Your task to perform on an android device: open sync settings in chrome Image 0: 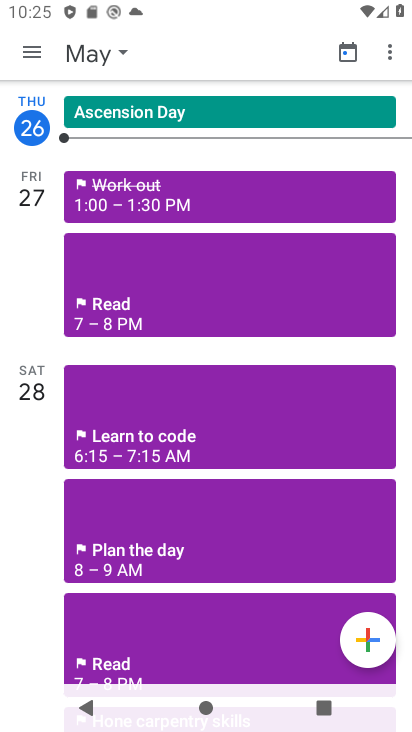
Step 0: press home button
Your task to perform on an android device: open sync settings in chrome Image 1: 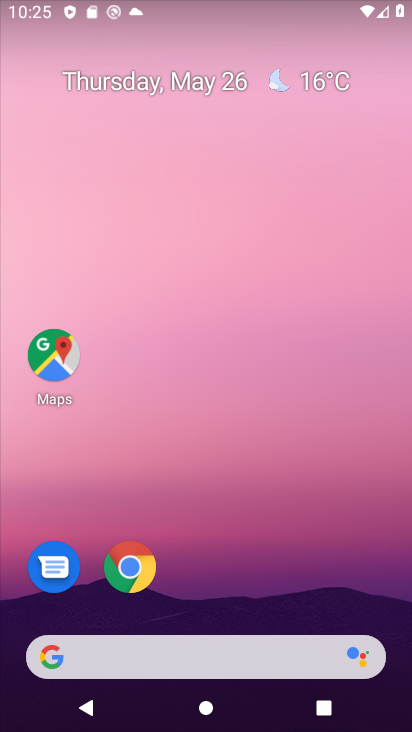
Step 1: click (126, 569)
Your task to perform on an android device: open sync settings in chrome Image 2: 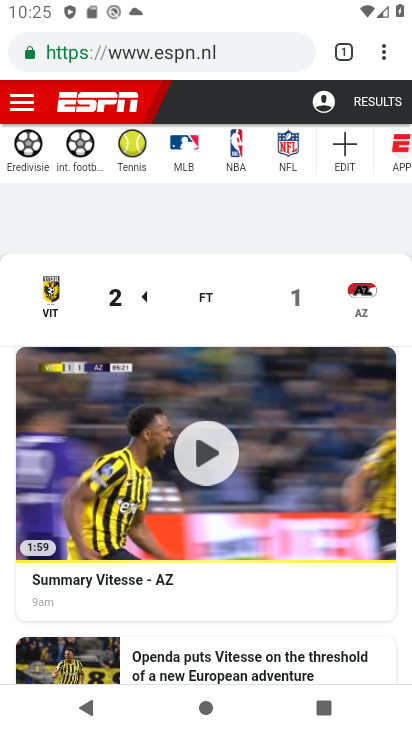
Step 2: click (376, 46)
Your task to perform on an android device: open sync settings in chrome Image 3: 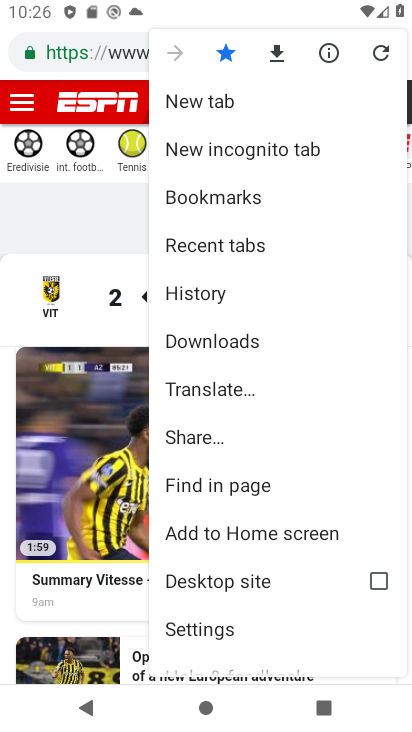
Step 3: click (247, 627)
Your task to perform on an android device: open sync settings in chrome Image 4: 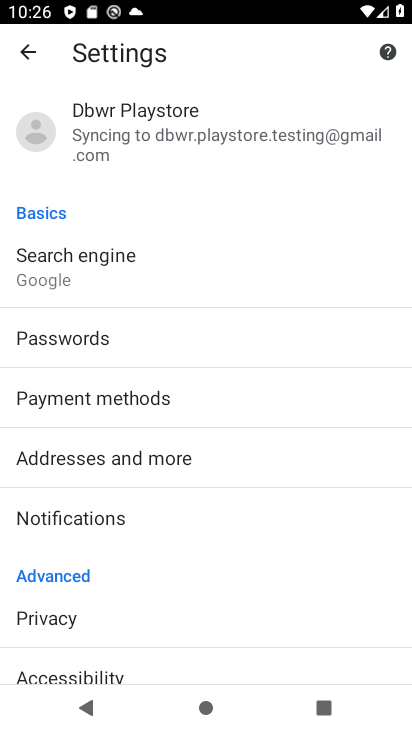
Step 4: click (382, 49)
Your task to perform on an android device: open sync settings in chrome Image 5: 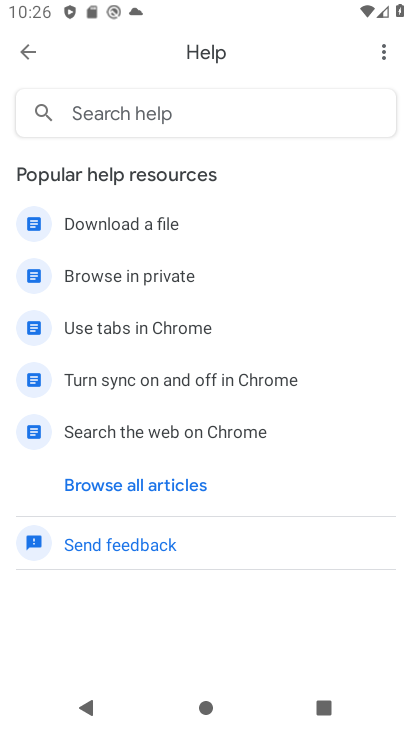
Step 5: click (157, 128)
Your task to perform on an android device: open sync settings in chrome Image 6: 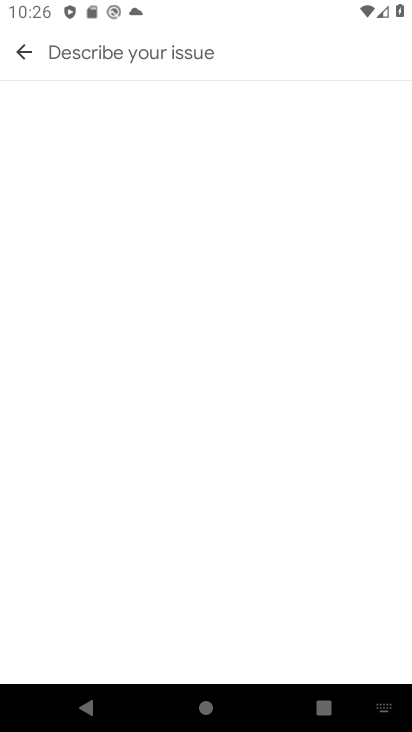
Step 6: click (31, 46)
Your task to perform on an android device: open sync settings in chrome Image 7: 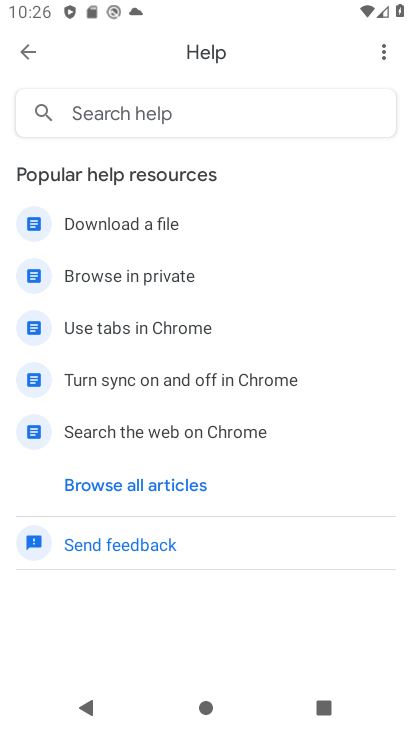
Step 7: click (31, 46)
Your task to perform on an android device: open sync settings in chrome Image 8: 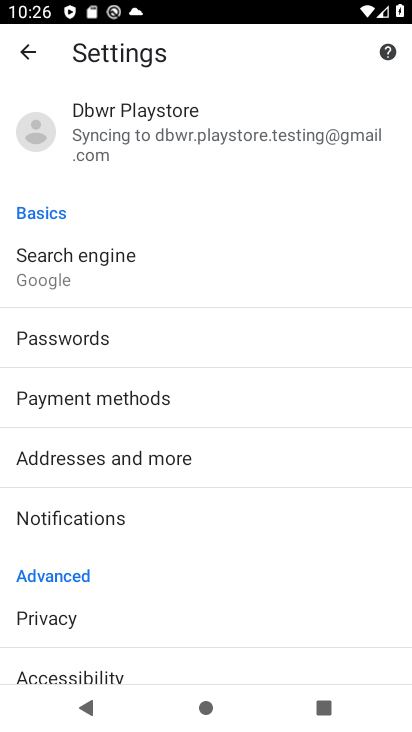
Step 8: click (127, 141)
Your task to perform on an android device: open sync settings in chrome Image 9: 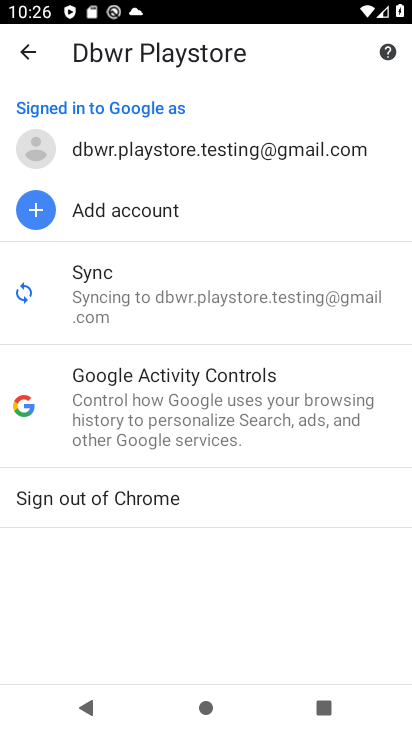
Step 9: click (157, 292)
Your task to perform on an android device: open sync settings in chrome Image 10: 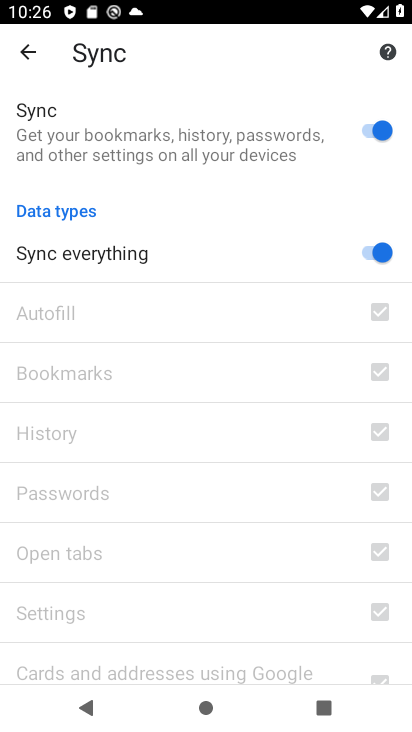
Step 10: task complete